Your task to perform on an android device: Go to Amazon Image 0: 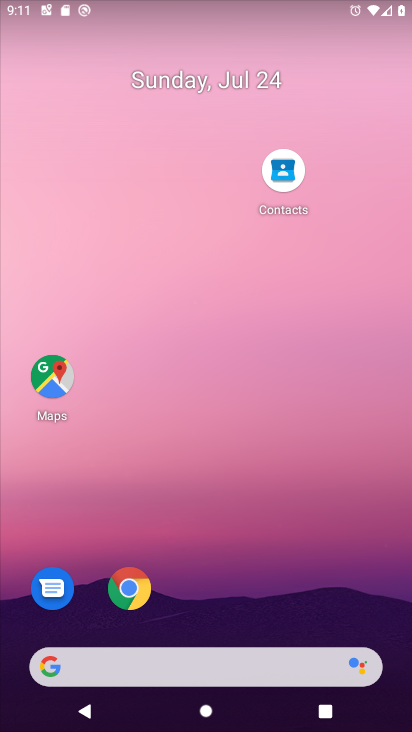
Step 0: press home button
Your task to perform on an android device: Go to Amazon Image 1: 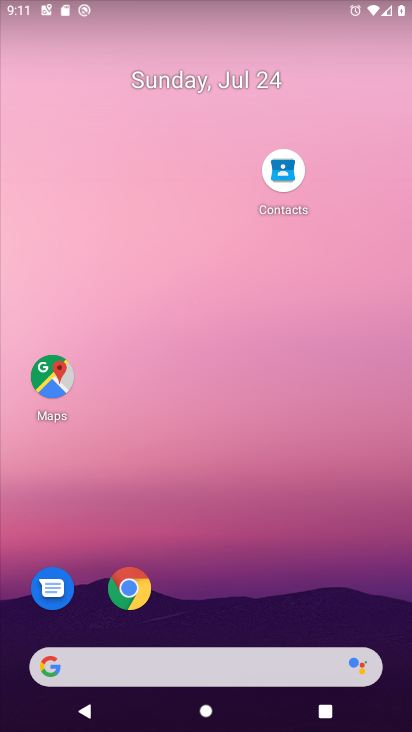
Step 1: click (127, 580)
Your task to perform on an android device: Go to Amazon Image 2: 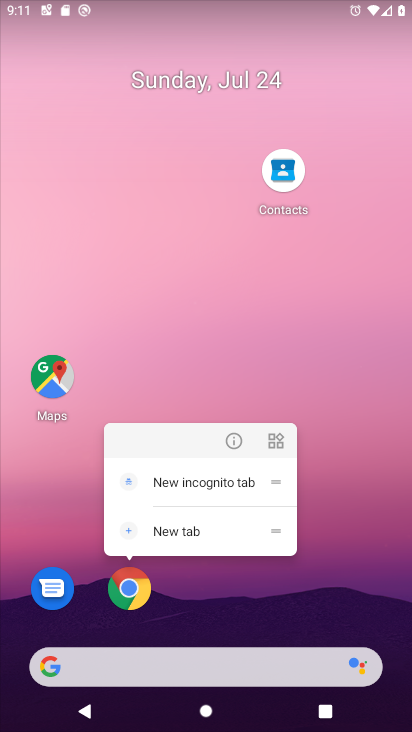
Step 2: click (127, 581)
Your task to perform on an android device: Go to Amazon Image 3: 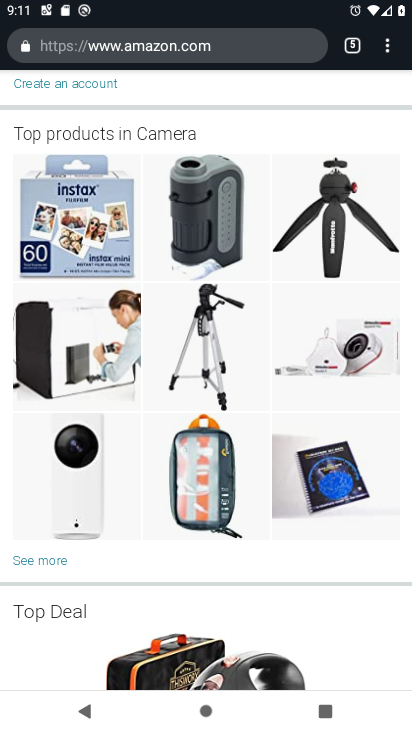
Step 3: drag from (257, 142) to (251, 594)
Your task to perform on an android device: Go to Amazon Image 4: 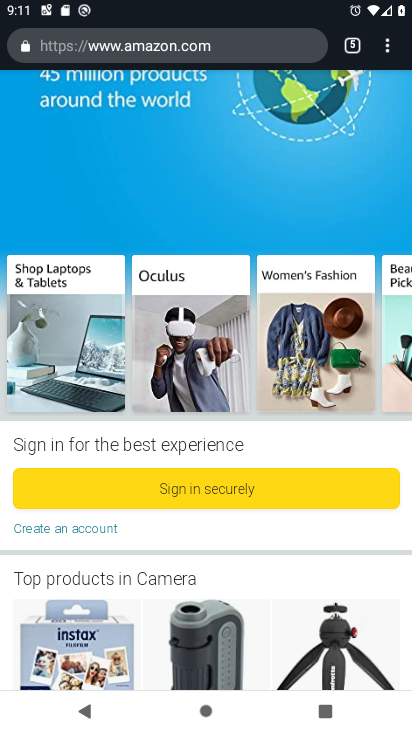
Step 4: drag from (248, 194) to (257, 637)
Your task to perform on an android device: Go to Amazon Image 5: 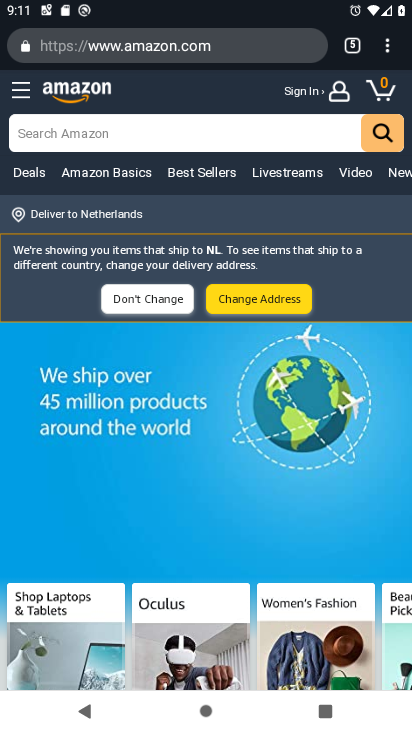
Step 5: click (148, 295)
Your task to perform on an android device: Go to Amazon Image 6: 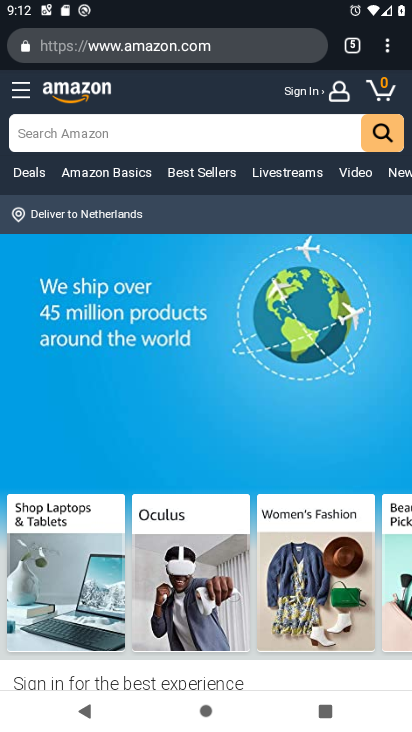
Step 6: task complete